Your task to perform on an android device: Toggle the flashlight Image 0: 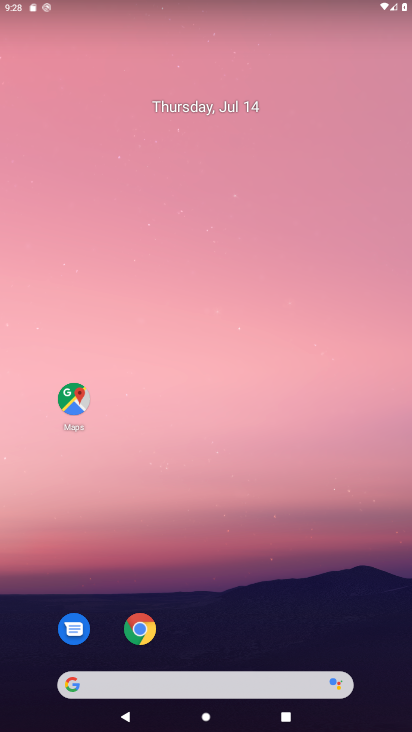
Step 0: drag from (331, 2) to (281, 345)
Your task to perform on an android device: Toggle the flashlight Image 1: 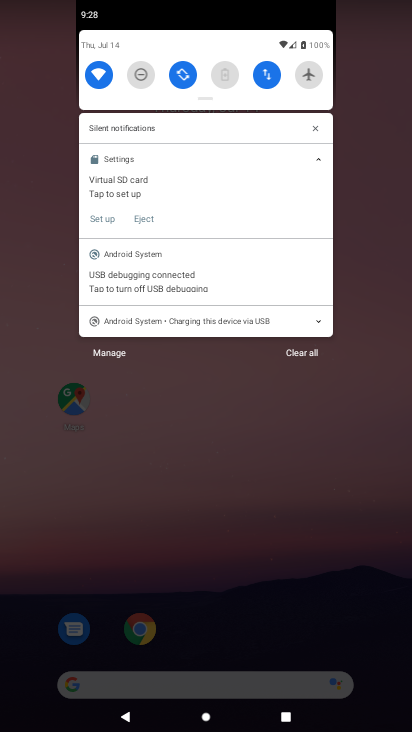
Step 1: task complete